Your task to perform on an android device: change the clock style Image 0: 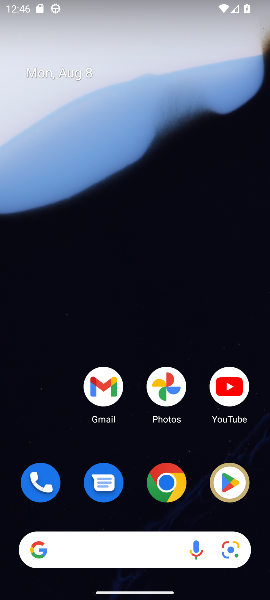
Step 0: drag from (153, 546) to (269, 142)
Your task to perform on an android device: change the clock style Image 1: 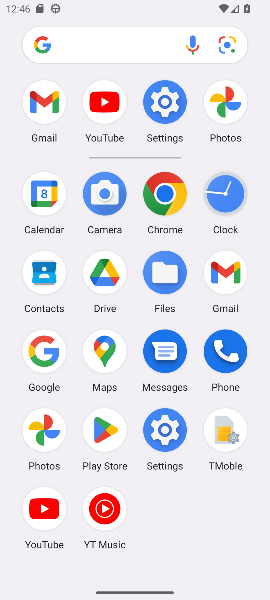
Step 1: click (223, 187)
Your task to perform on an android device: change the clock style Image 2: 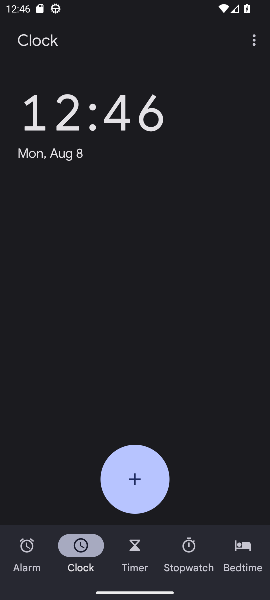
Step 2: click (250, 41)
Your task to perform on an android device: change the clock style Image 3: 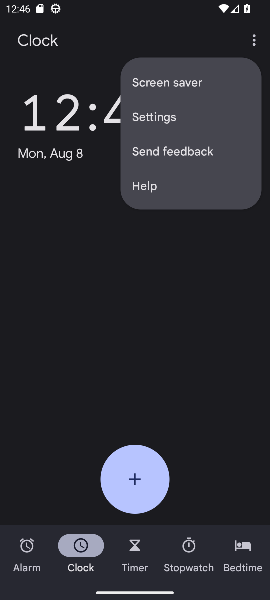
Step 3: click (164, 115)
Your task to perform on an android device: change the clock style Image 4: 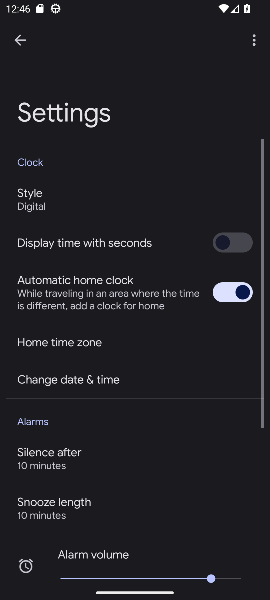
Step 4: click (63, 198)
Your task to perform on an android device: change the clock style Image 5: 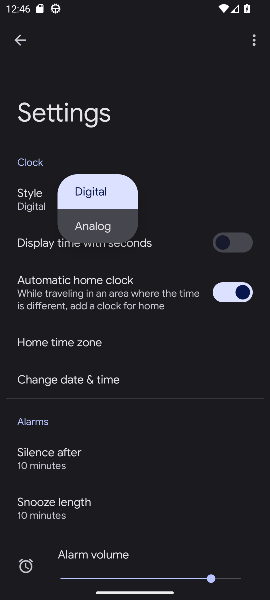
Step 5: click (84, 224)
Your task to perform on an android device: change the clock style Image 6: 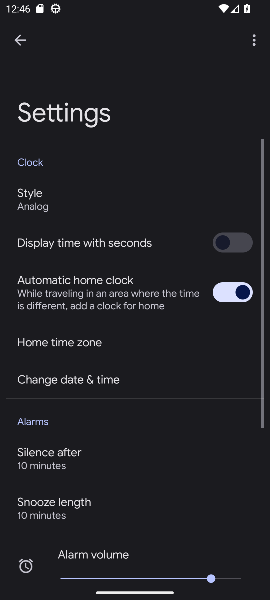
Step 6: task complete